Your task to perform on an android device: Show me recent news Image 0: 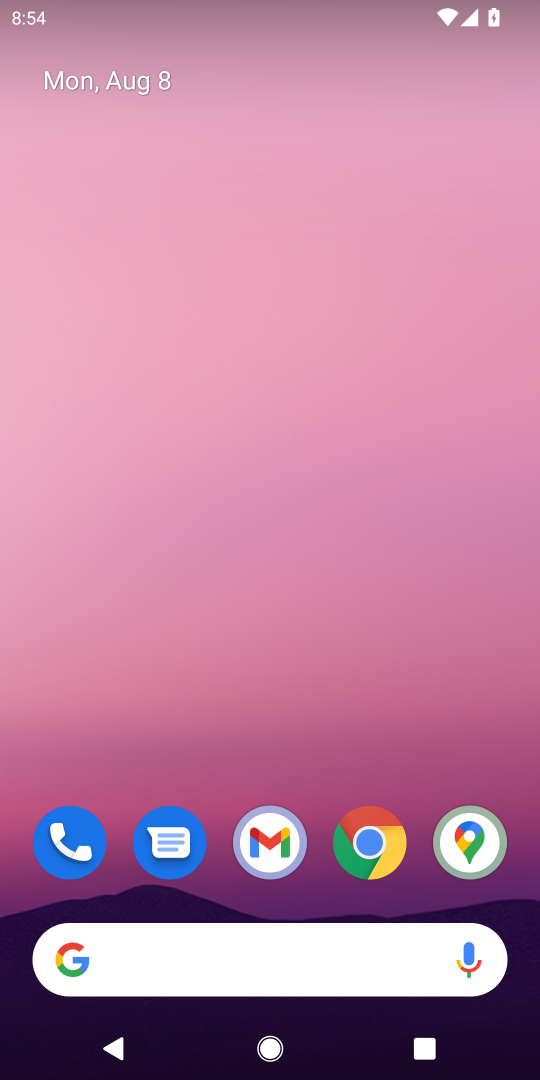
Step 0: click (225, 954)
Your task to perform on an android device: Show me recent news Image 1: 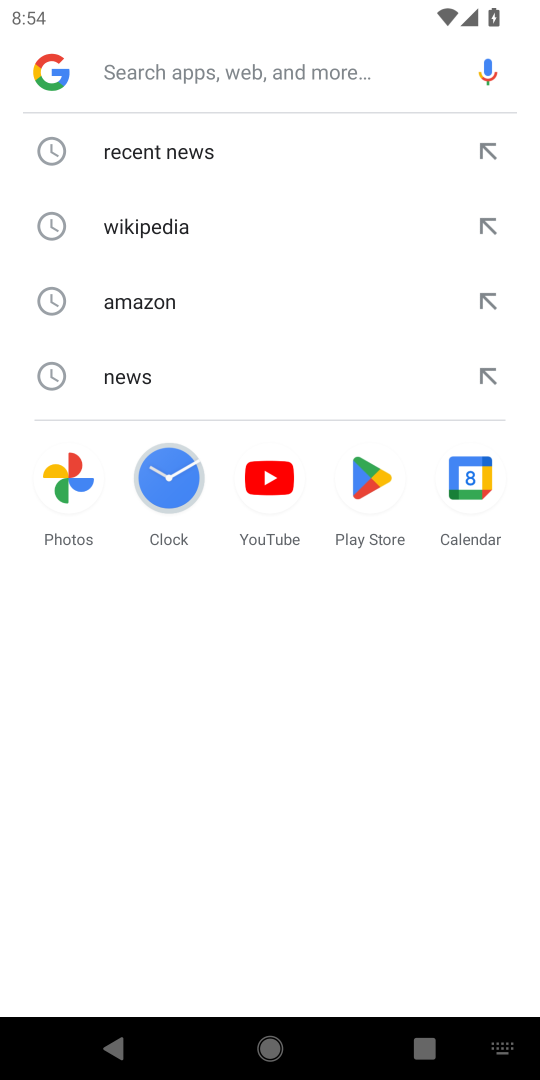
Step 1: type "recent news"
Your task to perform on an android device: Show me recent news Image 2: 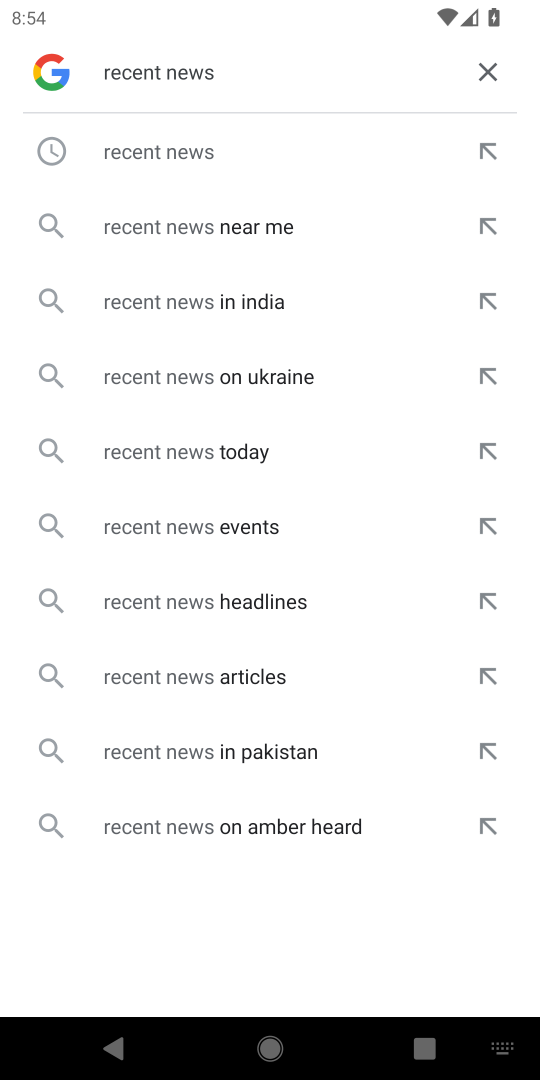
Step 2: click (205, 142)
Your task to perform on an android device: Show me recent news Image 3: 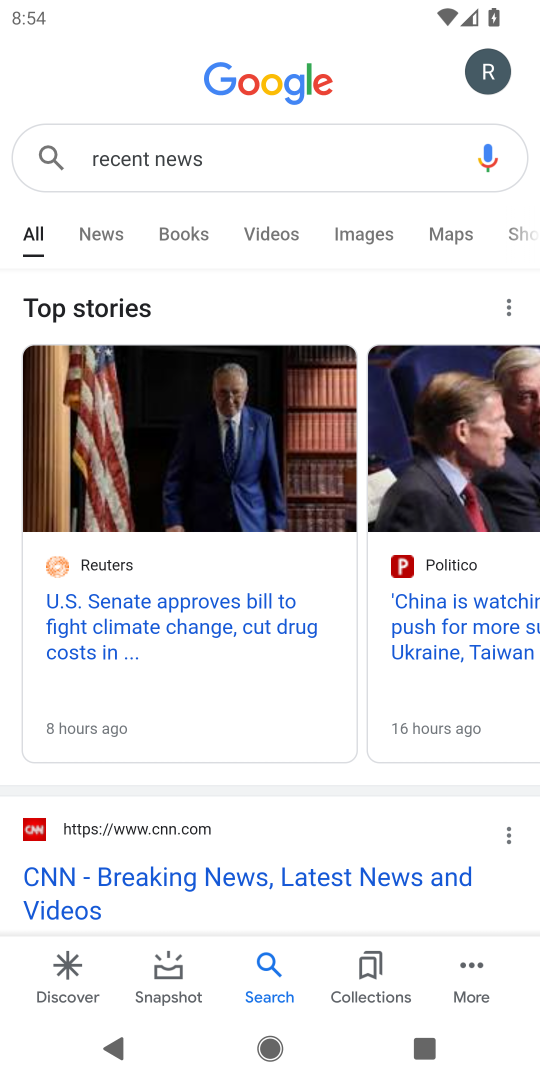
Step 3: task complete